Your task to perform on an android device: Search for Mexican restaurants on Maps Image 0: 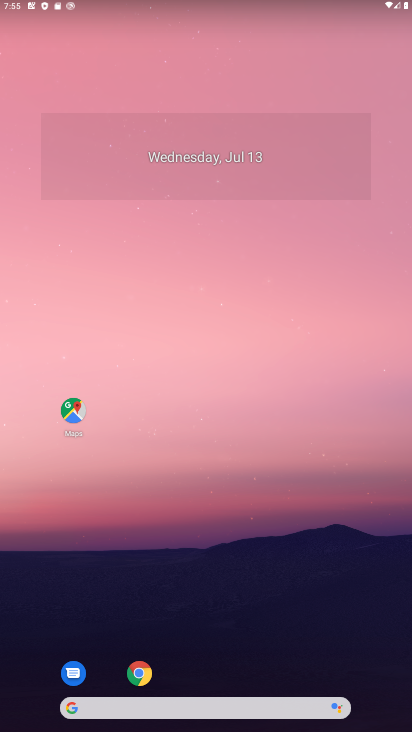
Step 0: drag from (341, 619) to (293, 101)
Your task to perform on an android device: Search for Mexican restaurants on Maps Image 1: 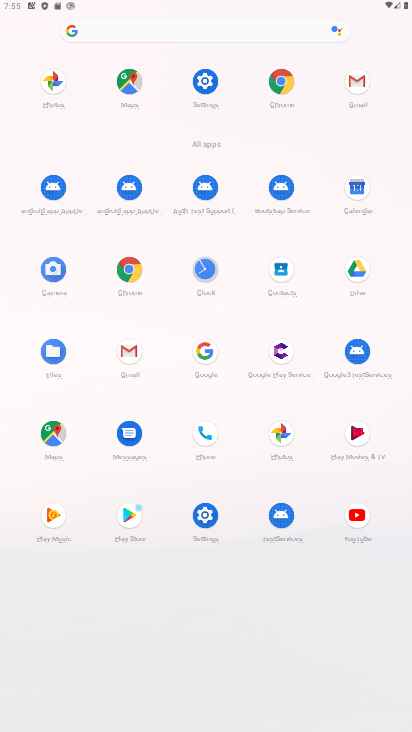
Step 1: click (125, 79)
Your task to perform on an android device: Search for Mexican restaurants on Maps Image 2: 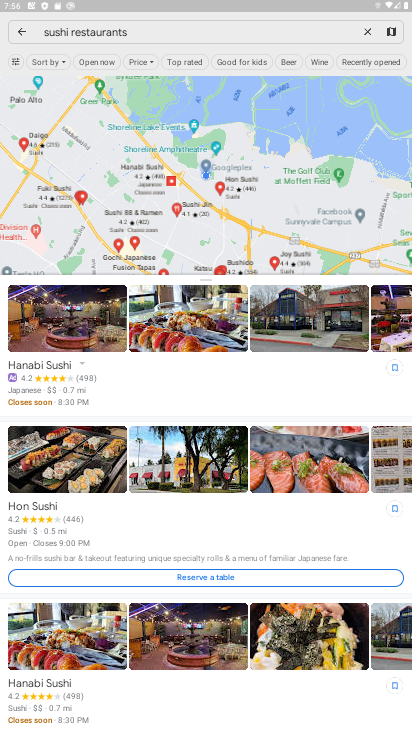
Step 2: click (204, 33)
Your task to perform on an android device: Search for Mexican restaurants on Maps Image 3: 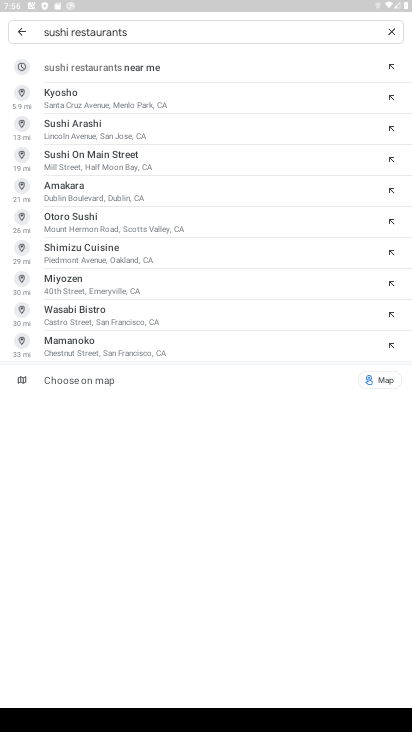
Step 3: click (387, 28)
Your task to perform on an android device: Search for Mexican restaurants on Maps Image 4: 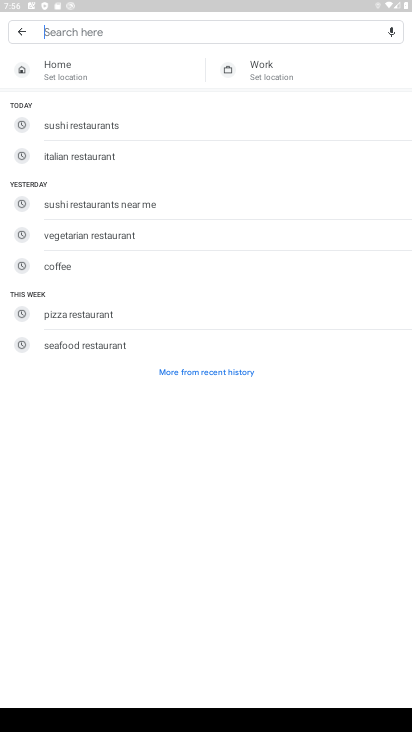
Step 4: type "Mexican restaurants"
Your task to perform on an android device: Search for Mexican restaurants on Maps Image 5: 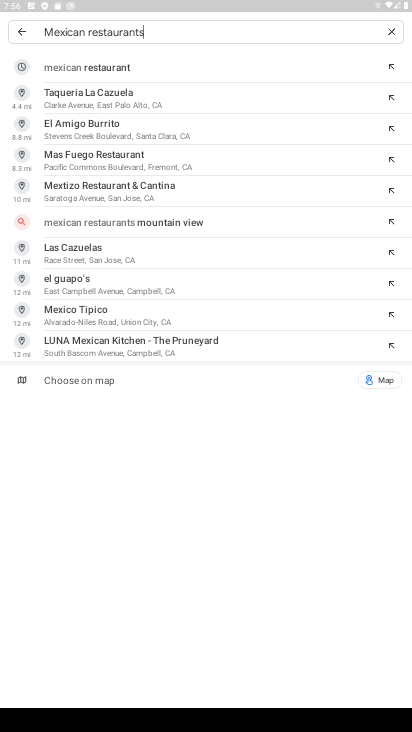
Step 5: press enter
Your task to perform on an android device: Search for Mexican restaurants on Maps Image 6: 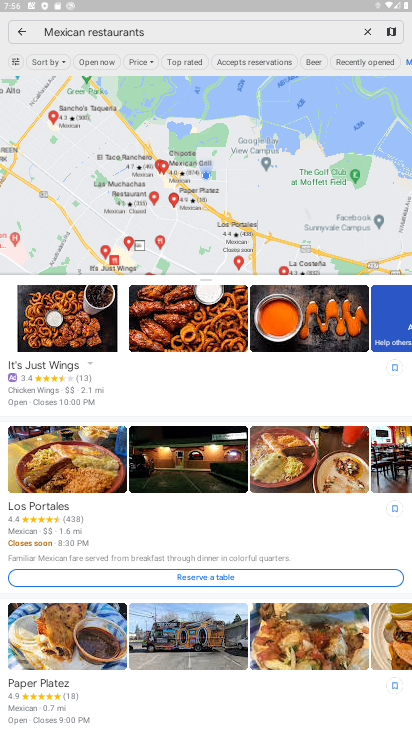
Step 6: task complete